Your task to perform on an android device: manage bookmarks in the chrome app Image 0: 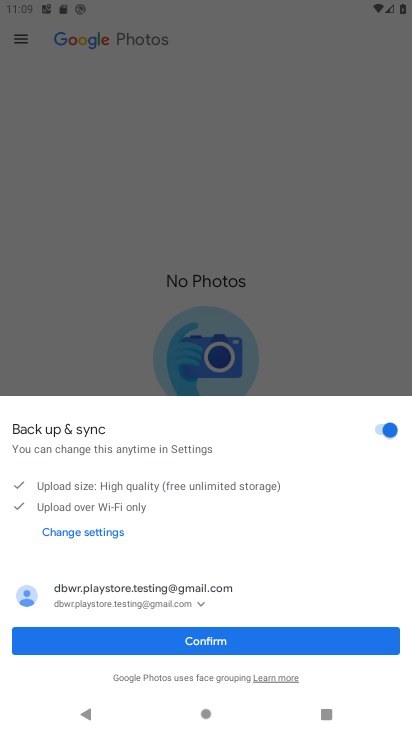
Step 0: press home button
Your task to perform on an android device: manage bookmarks in the chrome app Image 1: 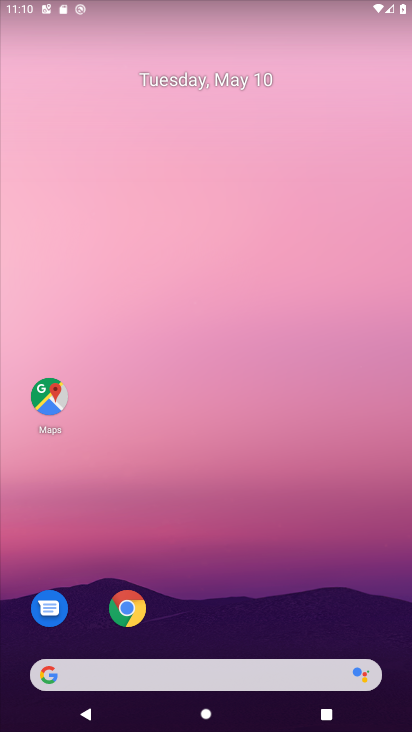
Step 1: click (123, 617)
Your task to perform on an android device: manage bookmarks in the chrome app Image 2: 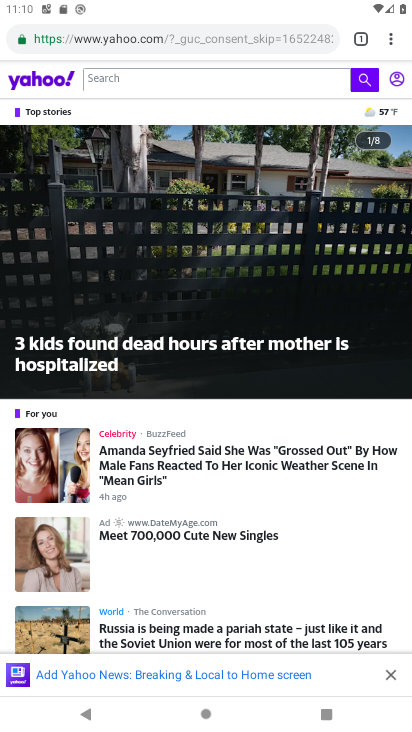
Step 2: task complete